Your task to perform on an android device: delete the emails in spam in the gmail app Image 0: 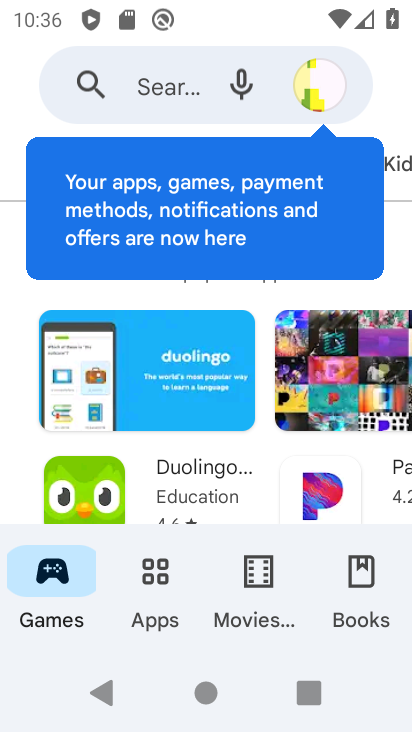
Step 0: press home button
Your task to perform on an android device: delete the emails in spam in the gmail app Image 1: 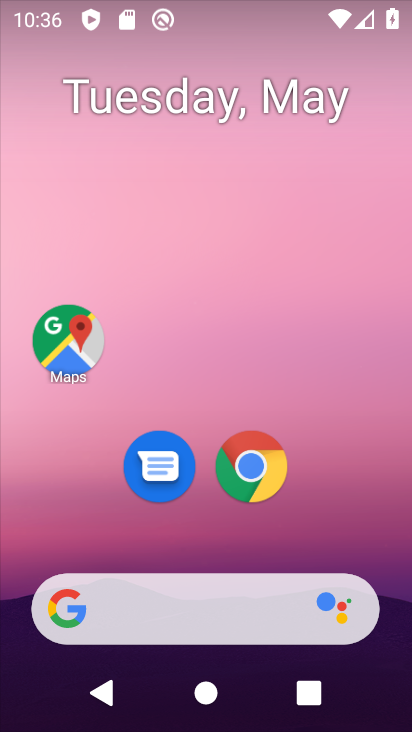
Step 1: drag from (145, 553) to (145, 190)
Your task to perform on an android device: delete the emails in spam in the gmail app Image 2: 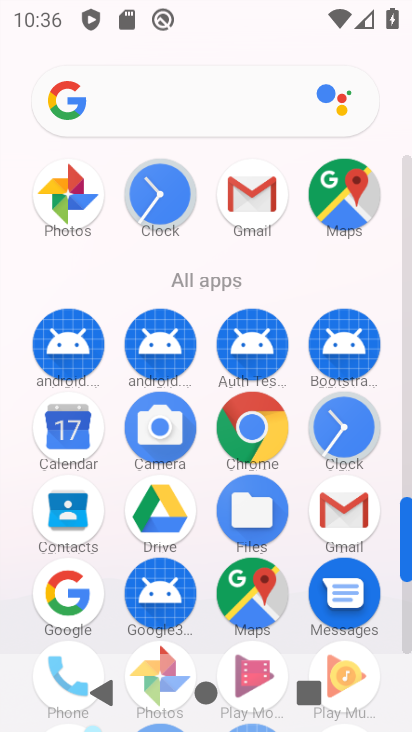
Step 2: click (240, 202)
Your task to perform on an android device: delete the emails in spam in the gmail app Image 3: 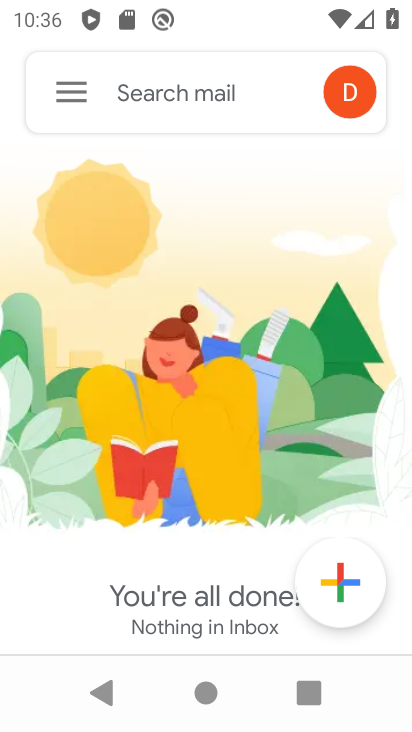
Step 3: click (59, 94)
Your task to perform on an android device: delete the emails in spam in the gmail app Image 4: 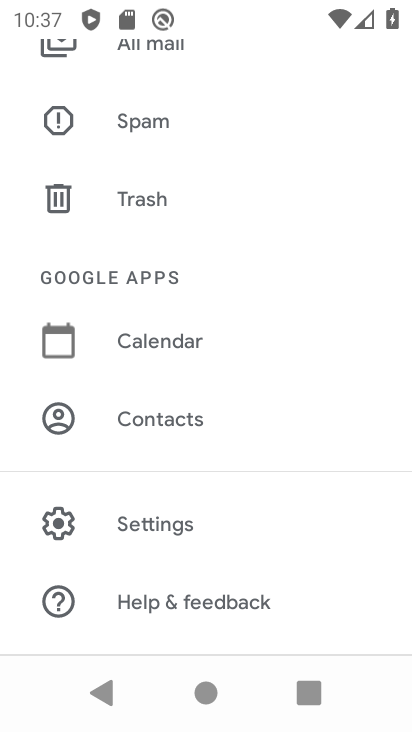
Step 4: click (152, 125)
Your task to perform on an android device: delete the emails in spam in the gmail app Image 5: 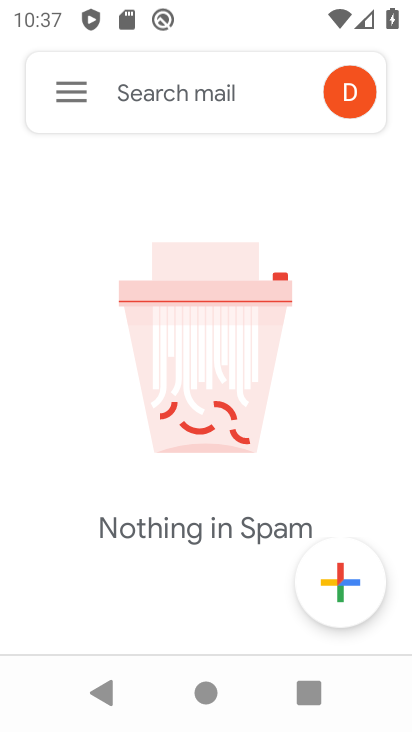
Step 5: task complete